Your task to perform on an android device: View the shopping cart on bestbuy.com. Add "macbook pro 13 inch" to the cart on bestbuy.com Image 0: 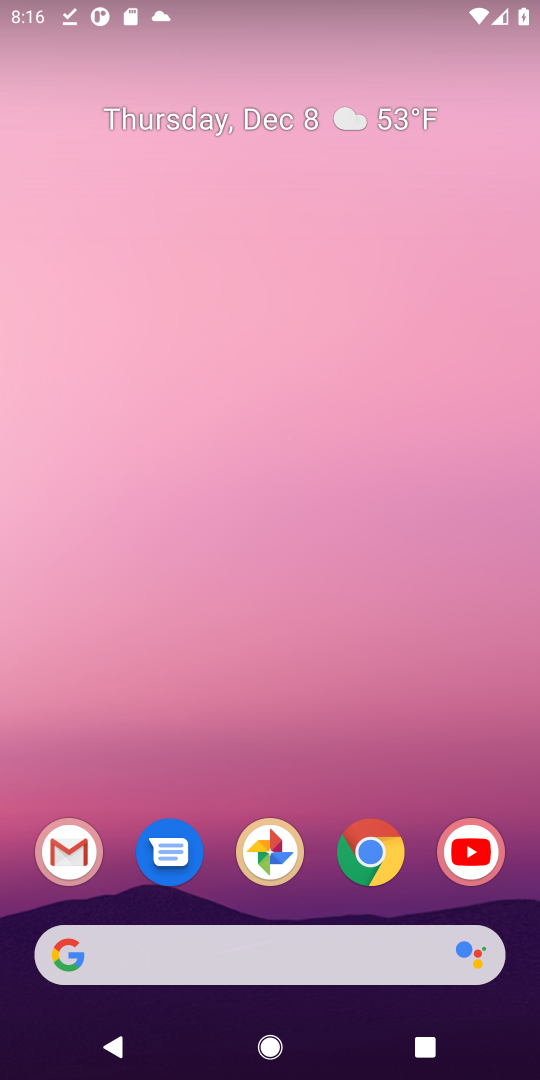
Step 0: click (361, 941)
Your task to perform on an android device: View the shopping cart on bestbuy.com. Add "macbook pro 13 inch" to the cart on bestbuy.com Image 1: 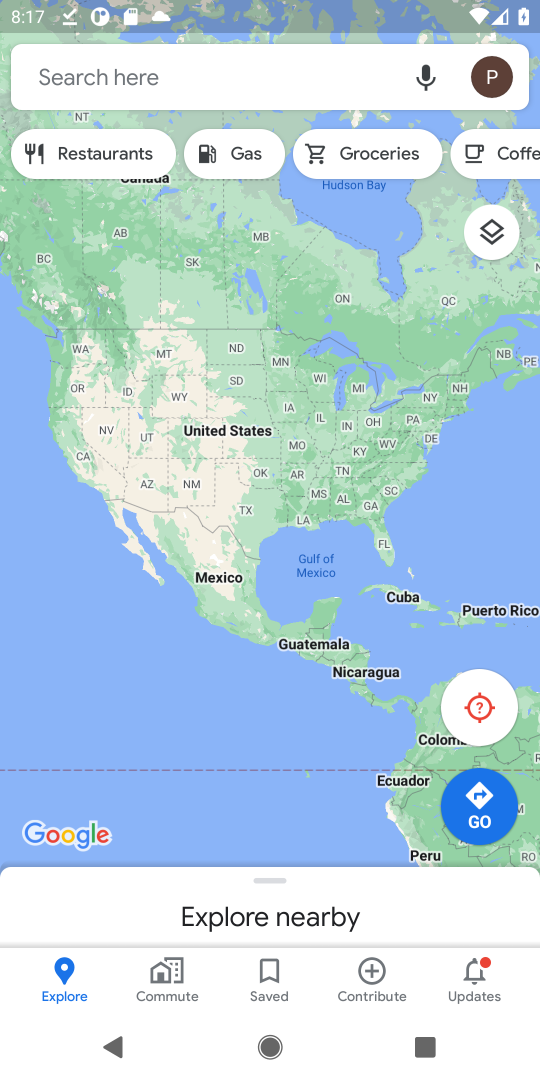
Step 1: press home button
Your task to perform on an android device: View the shopping cart on bestbuy.com. Add "macbook pro 13 inch" to the cart on bestbuy.com Image 2: 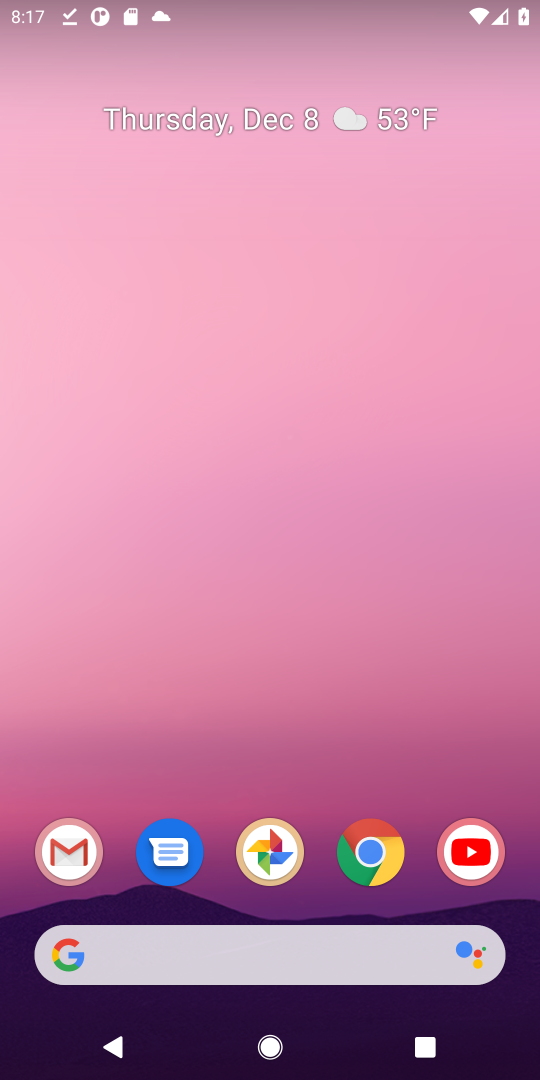
Step 2: click (368, 975)
Your task to perform on an android device: View the shopping cart on bestbuy.com. Add "macbook pro 13 inch" to the cart on bestbuy.com Image 3: 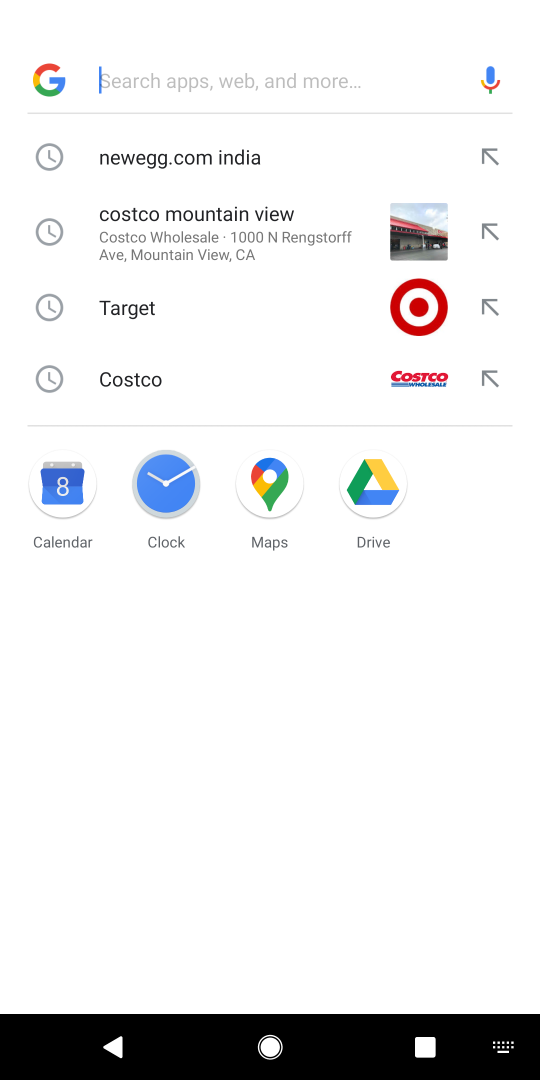
Step 3: type "bestbuy'"
Your task to perform on an android device: View the shopping cart on bestbuy.com. Add "macbook pro 13 inch" to the cart on bestbuy.com Image 4: 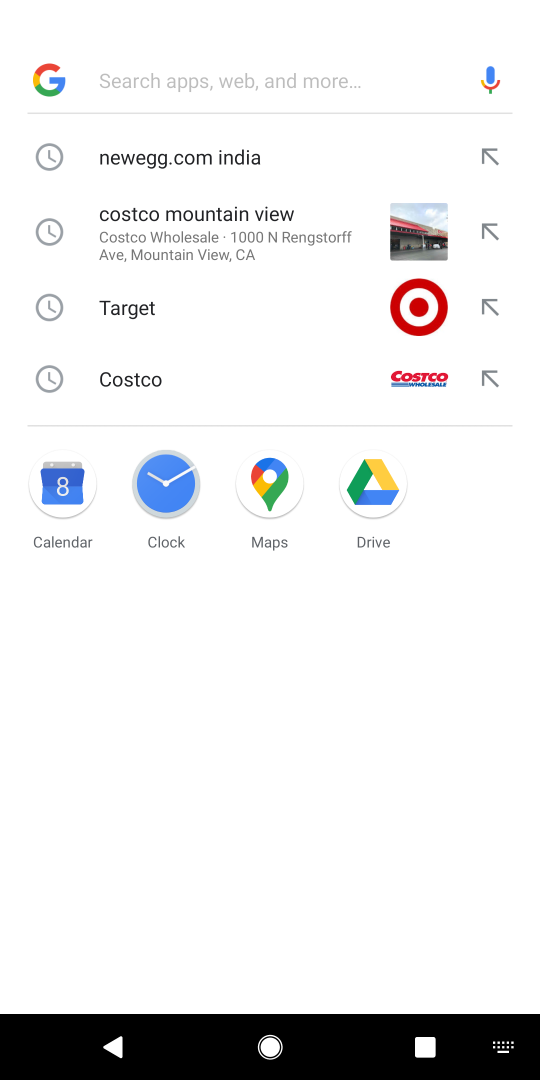
Step 4: type "bestbuy"
Your task to perform on an android device: View the shopping cart on bestbuy.com. Add "macbook pro 13 inch" to the cart on bestbuy.com Image 5: 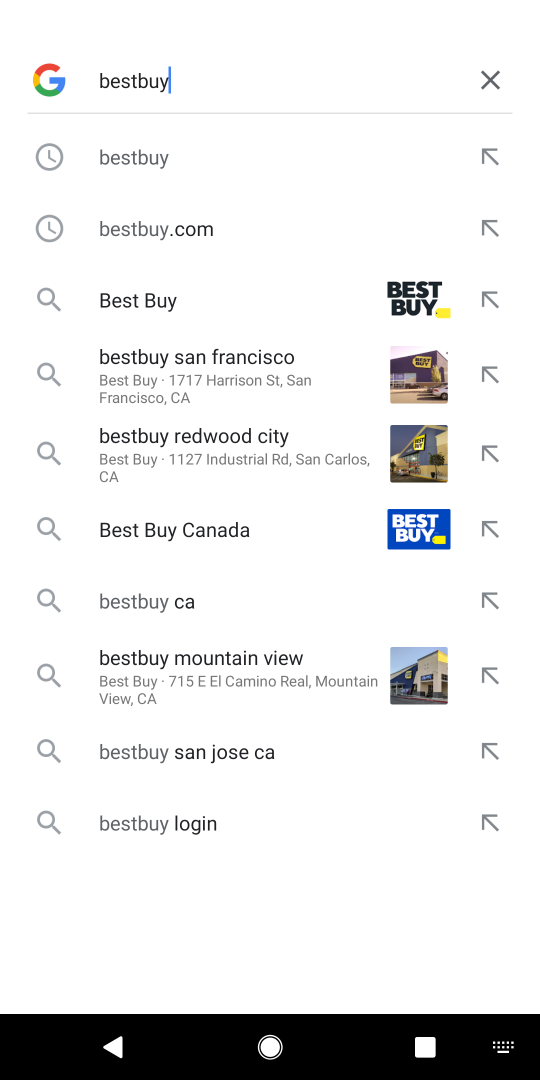
Step 5: click (155, 319)
Your task to perform on an android device: View the shopping cart on bestbuy.com. Add "macbook pro 13 inch" to the cart on bestbuy.com Image 6: 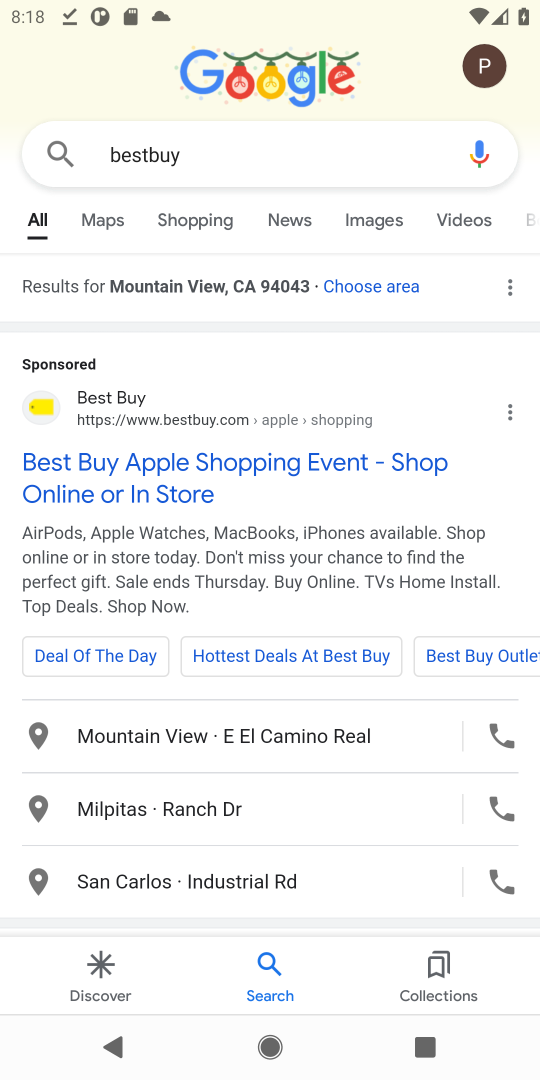
Step 6: click (140, 468)
Your task to perform on an android device: View the shopping cart on bestbuy.com. Add "macbook pro 13 inch" to the cart on bestbuy.com Image 7: 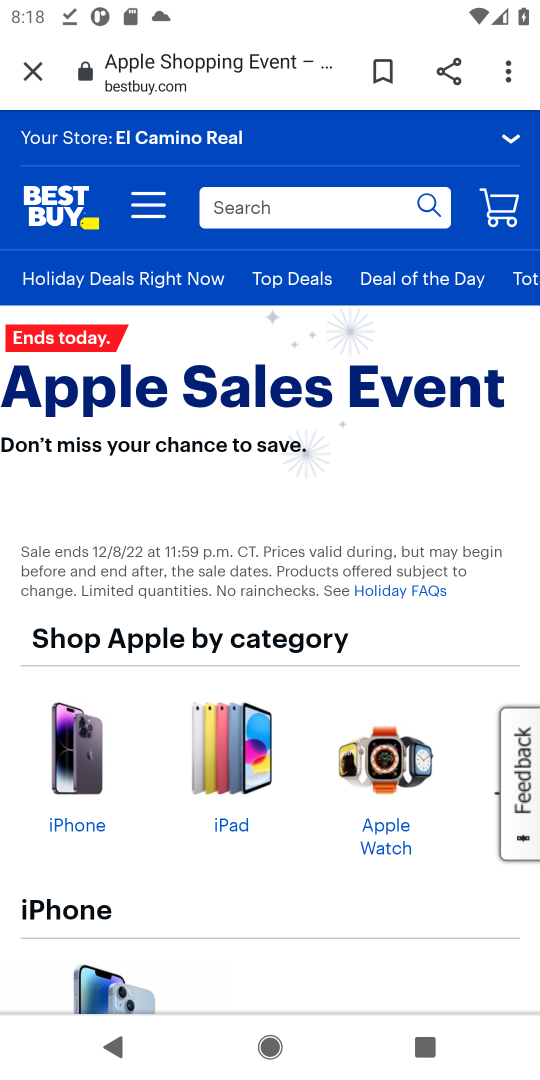
Step 7: task complete